Your task to perform on an android device: change keyboard looks Image 0: 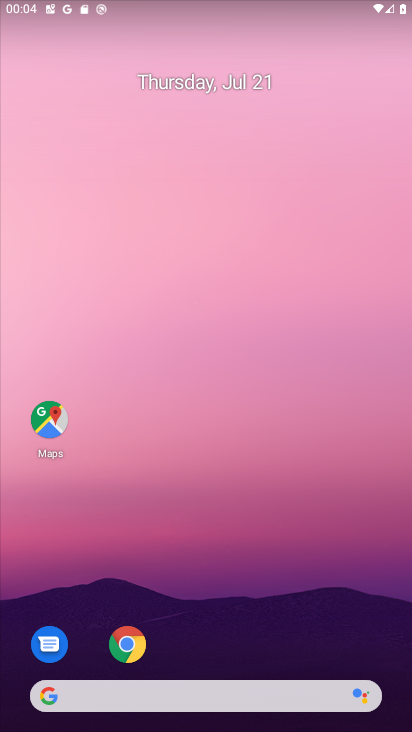
Step 0: drag from (115, 714) to (112, 0)
Your task to perform on an android device: change keyboard looks Image 1: 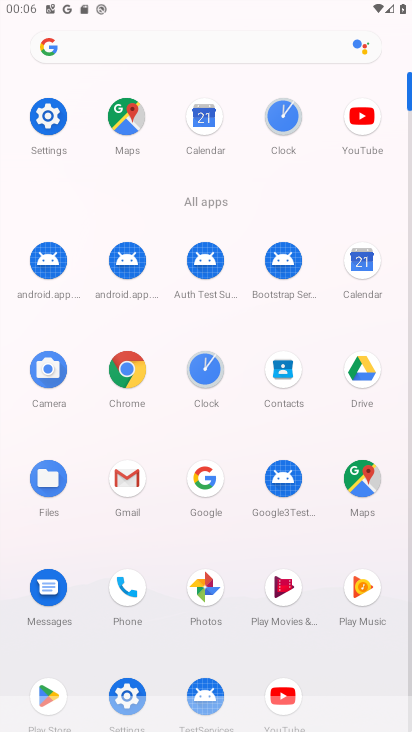
Step 1: click (42, 130)
Your task to perform on an android device: change keyboard looks Image 2: 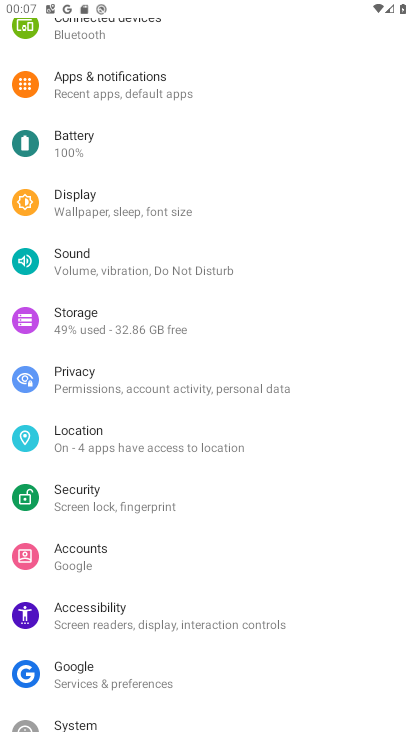
Step 2: drag from (152, 676) to (322, 11)
Your task to perform on an android device: change keyboard looks Image 3: 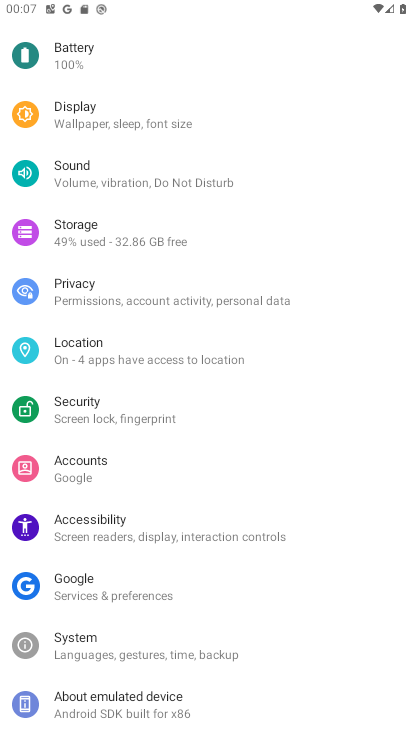
Step 3: click (154, 654)
Your task to perform on an android device: change keyboard looks Image 4: 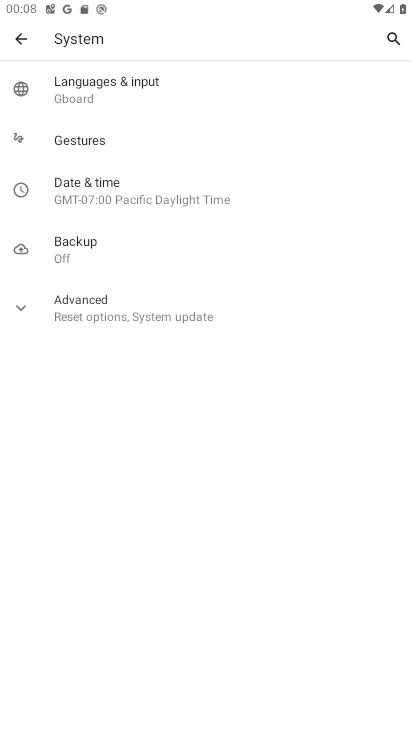
Step 4: click (143, 88)
Your task to perform on an android device: change keyboard looks Image 5: 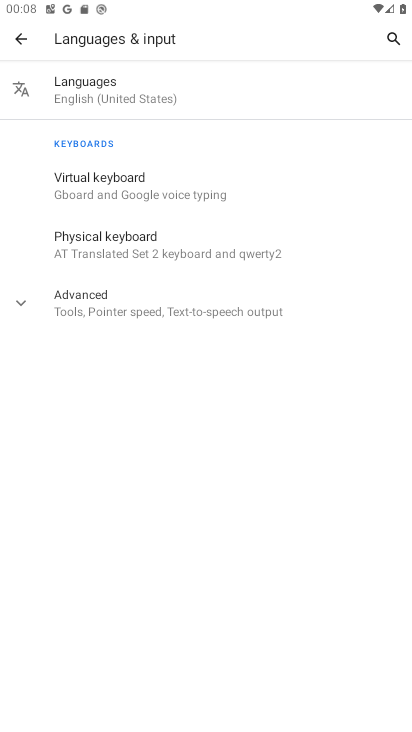
Step 5: click (103, 178)
Your task to perform on an android device: change keyboard looks Image 6: 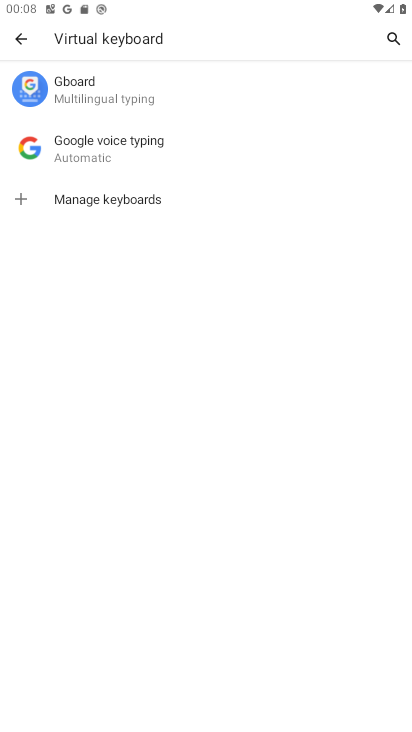
Step 6: click (135, 97)
Your task to perform on an android device: change keyboard looks Image 7: 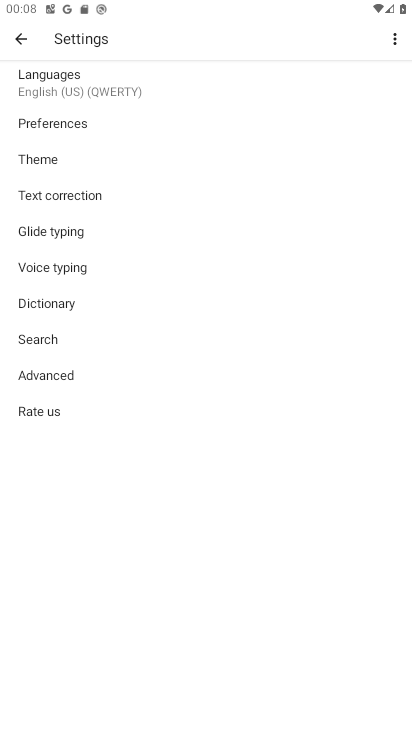
Step 7: click (66, 169)
Your task to perform on an android device: change keyboard looks Image 8: 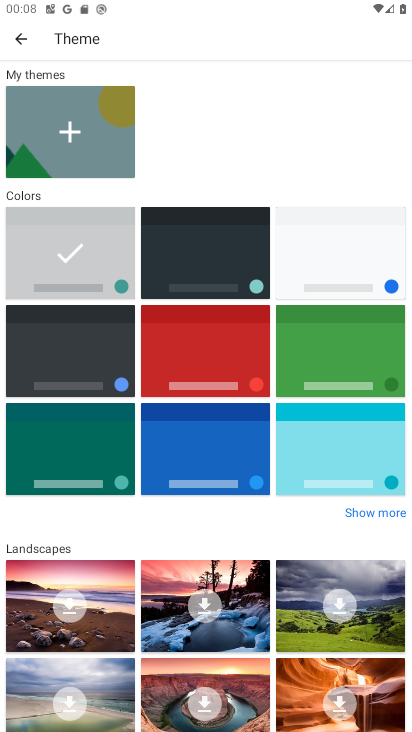
Step 8: drag from (225, 642) to (286, 180)
Your task to perform on an android device: change keyboard looks Image 9: 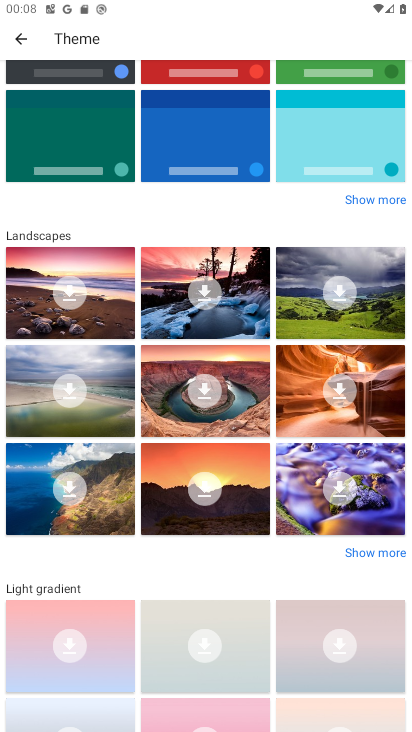
Step 9: click (58, 302)
Your task to perform on an android device: change keyboard looks Image 10: 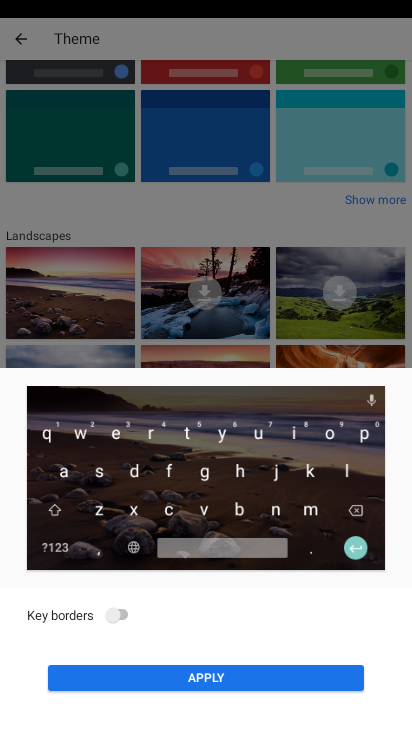
Step 10: click (212, 678)
Your task to perform on an android device: change keyboard looks Image 11: 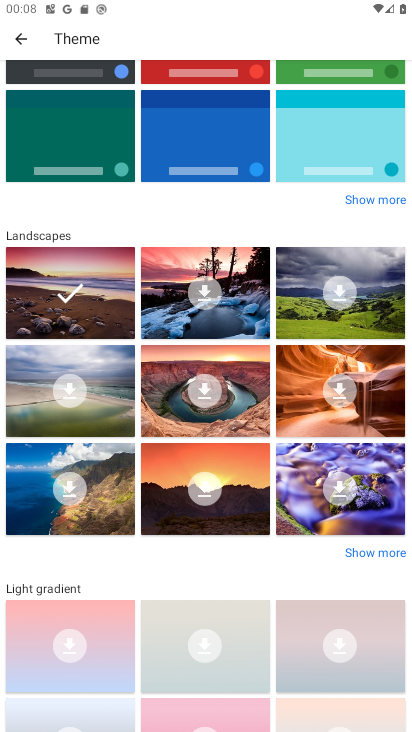
Step 11: task complete